Your task to perform on an android device: Search for pizza restaurants on Maps Image 0: 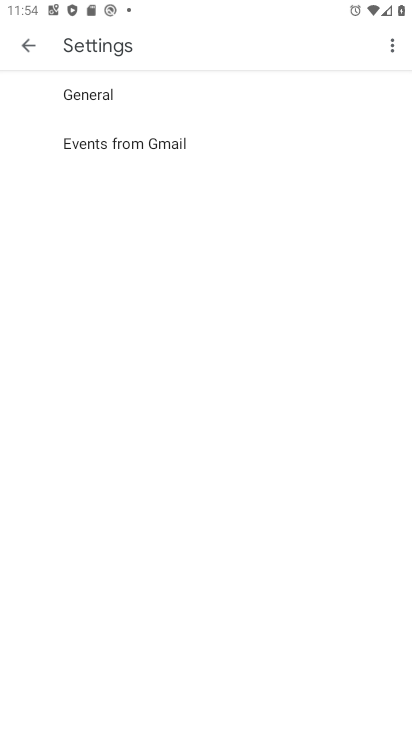
Step 0: press home button
Your task to perform on an android device: Search for pizza restaurants on Maps Image 1: 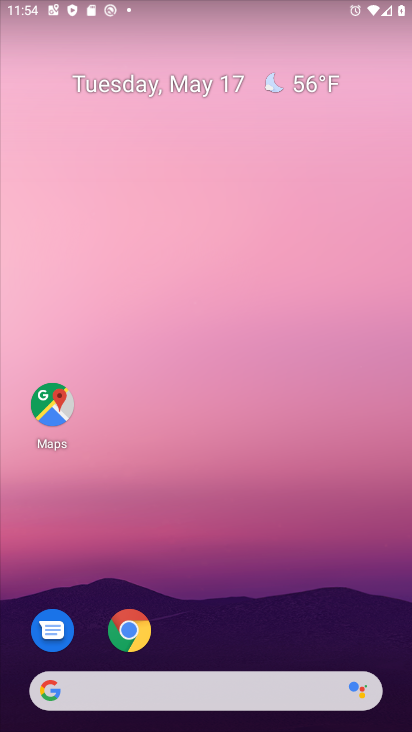
Step 1: drag from (346, 600) to (294, 94)
Your task to perform on an android device: Search for pizza restaurants on Maps Image 2: 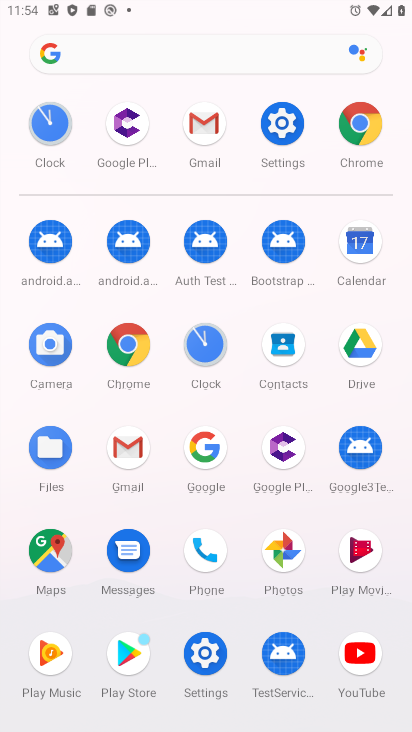
Step 2: click (45, 542)
Your task to perform on an android device: Search for pizza restaurants on Maps Image 3: 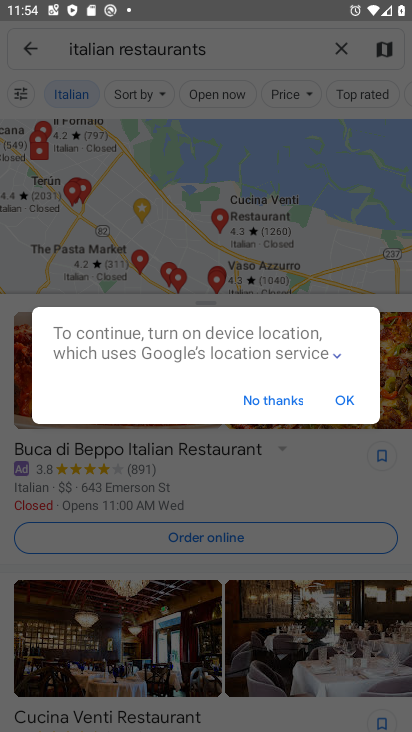
Step 3: click (340, 403)
Your task to perform on an android device: Search for pizza restaurants on Maps Image 4: 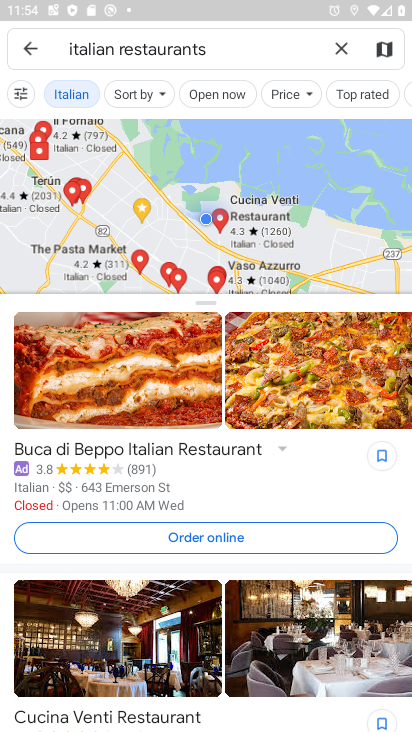
Step 4: click (332, 48)
Your task to perform on an android device: Search for pizza restaurants on Maps Image 5: 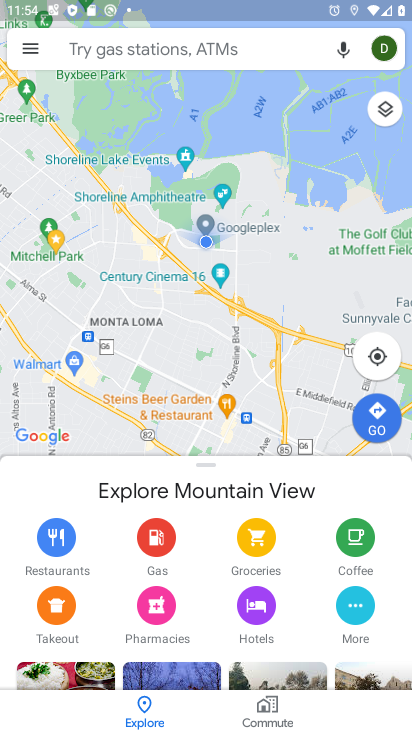
Step 5: click (165, 50)
Your task to perform on an android device: Search for pizza restaurants on Maps Image 6: 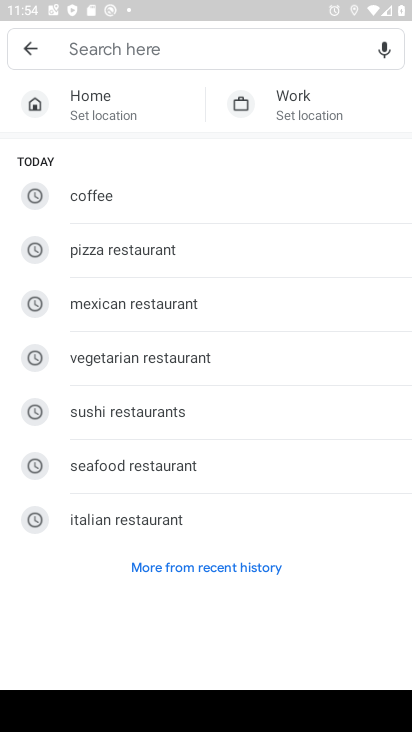
Step 6: click (161, 259)
Your task to perform on an android device: Search for pizza restaurants on Maps Image 7: 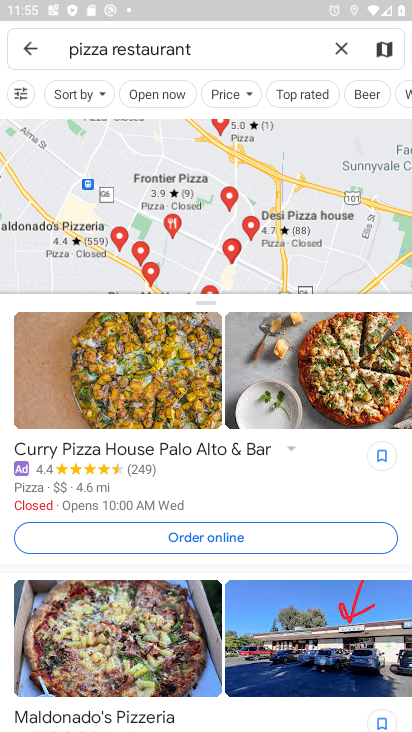
Step 7: task complete